Your task to perform on an android device: Open battery settings Image 0: 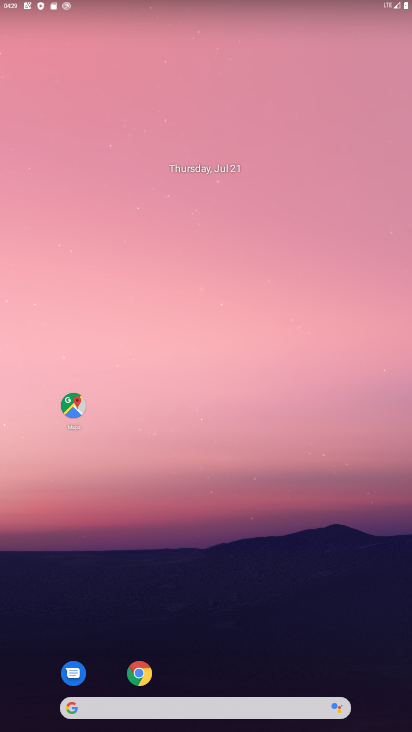
Step 0: drag from (294, 608) to (278, 74)
Your task to perform on an android device: Open battery settings Image 1: 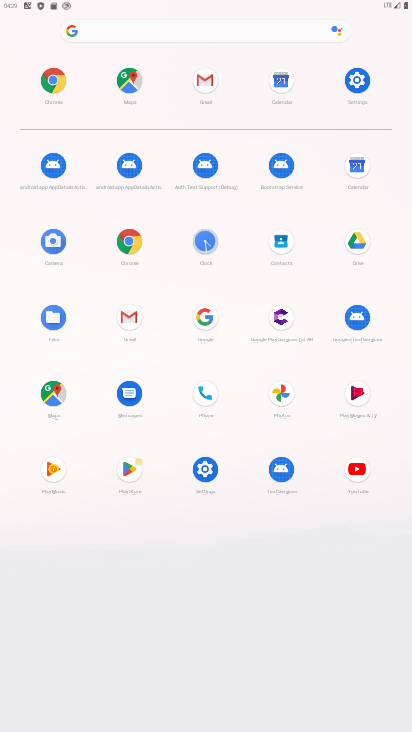
Step 1: click (361, 77)
Your task to perform on an android device: Open battery settings Image 2: 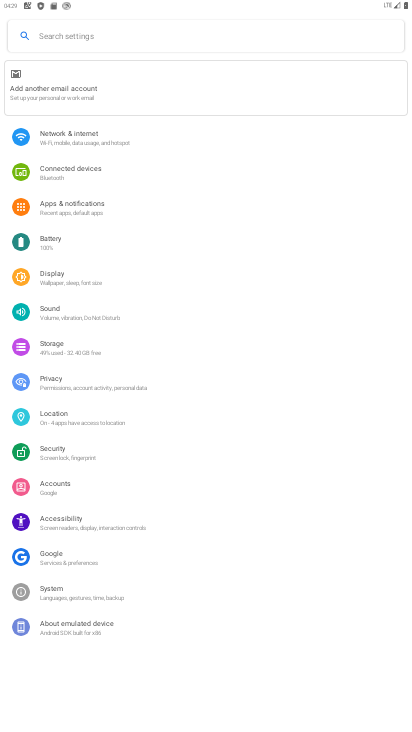
Step 2: click (64, 245)
Your task to perform on an android device: Open battery settings Image 3: 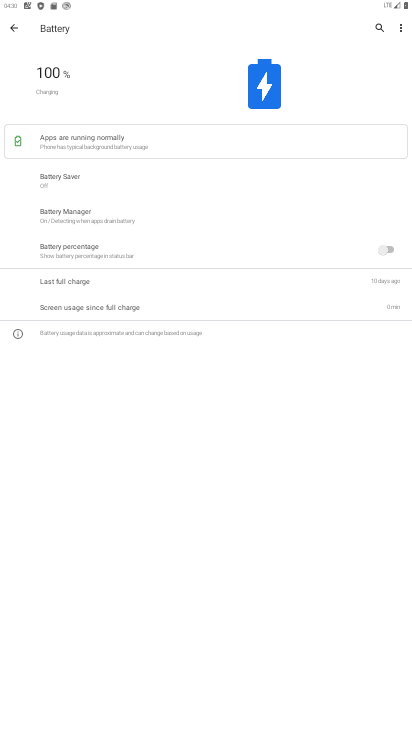
Step 3: task complete